Your task to perform on an android device: Open privacy settings Image 0: 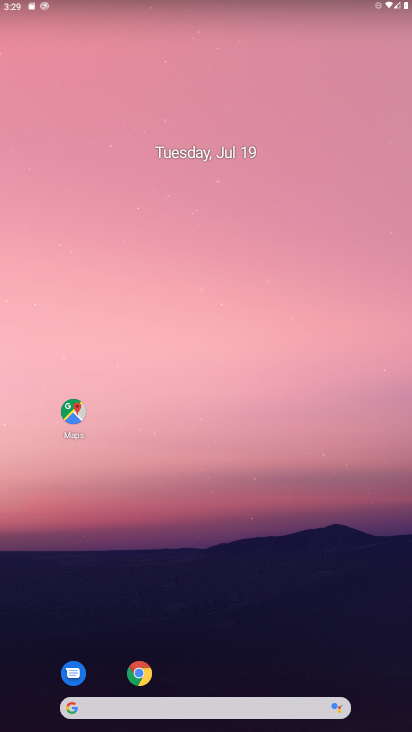
Step 0: drag from (211, 653) to (255, 15)
Your task to perform on an android device: Open privacy settings Image 1: 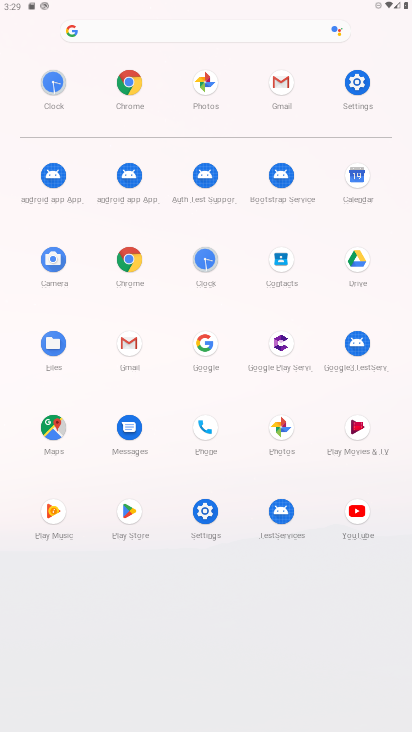
Step 1: click (196, 509)
Your task to perform on an android device: Open privacy settings Image 2: 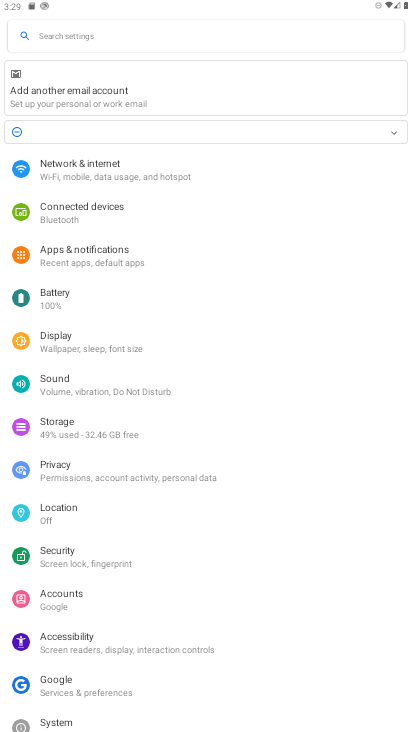
Step 2: click (103, 473)
Your task to perform on an android device: Open privacy settings Image 3: 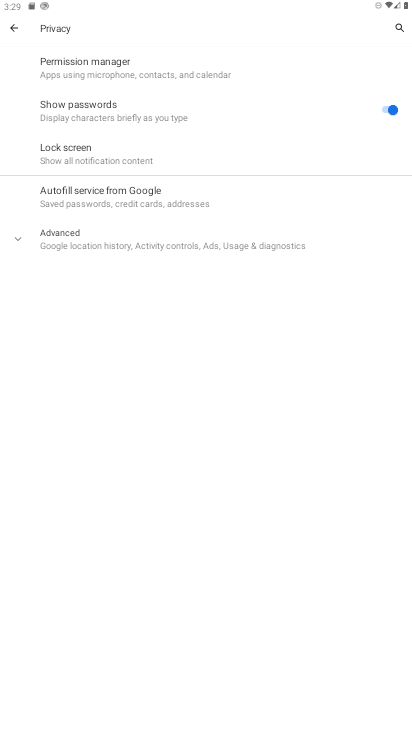
Step 3: task complete